Your task to perform on an android device: check data usage Image 0: 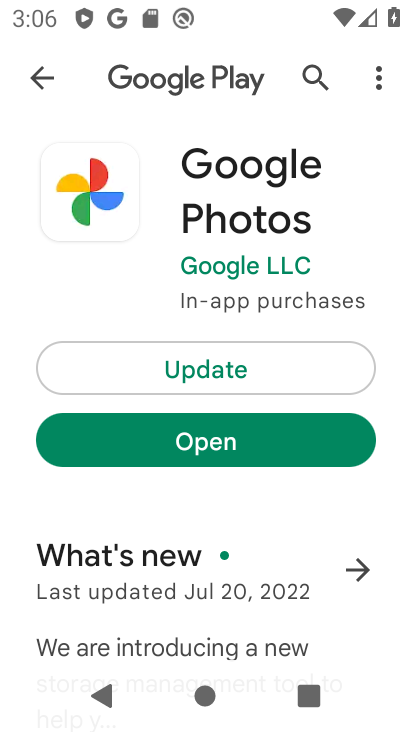
Step 0: press back button
Your task to perform on an android device: check data usage Image 1: 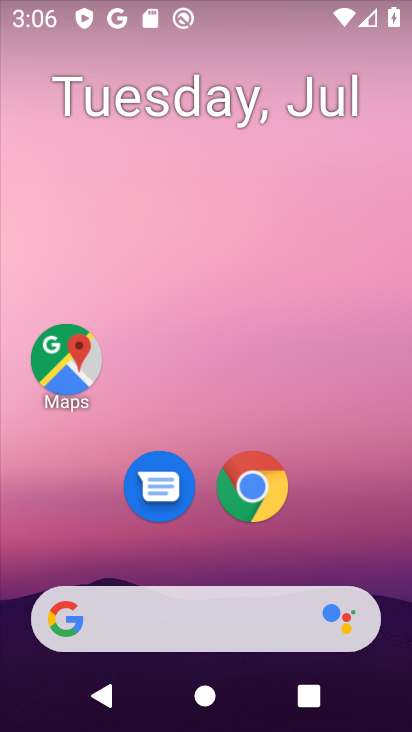
Step 1: drag from (153, 572) to (275, 6)
Your task to perform on an android device: check data usage Image 2: 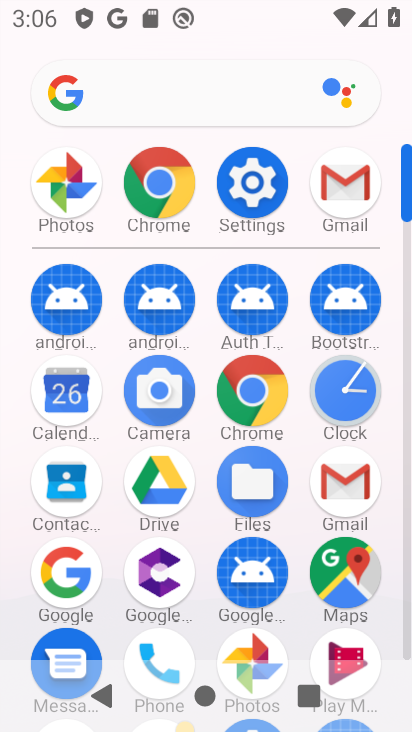
Step 2: click (250, 171)
Your task to perform on an android device: check data usage Image 3: 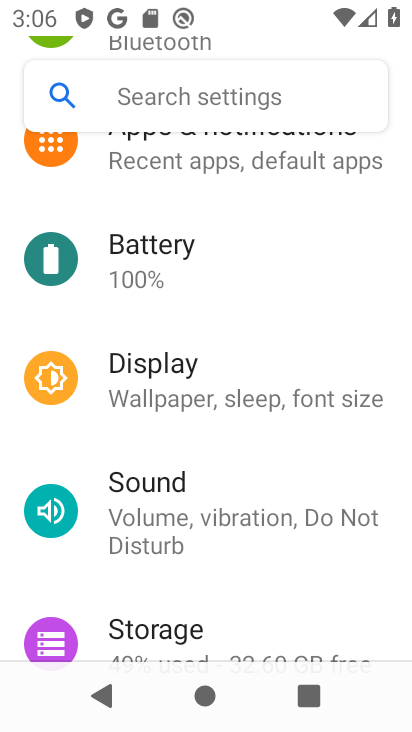
Step 3: drag from (189, 199) to (152, 719)
Your task to perform on an android device: check data usage Image 4: 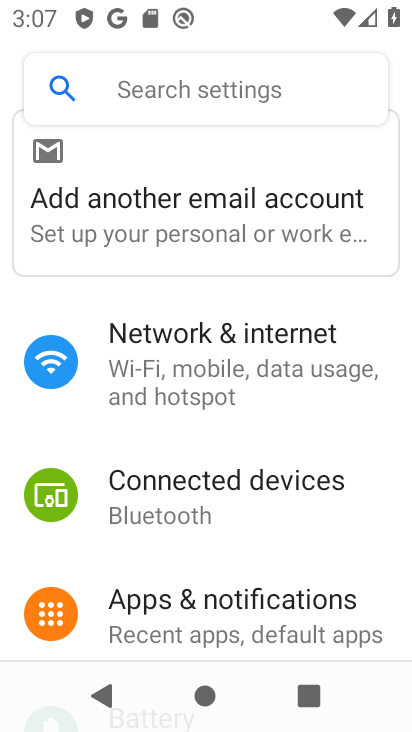
Step 4: click (231, 349)
Your task to perform on an android device: check data usage Image 5: 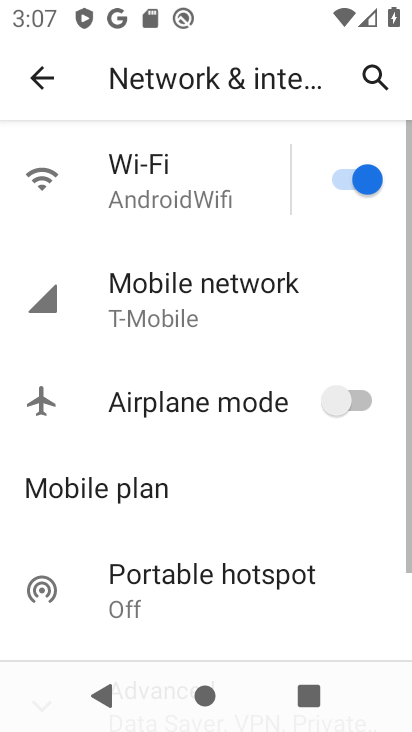
Step 5: click (185, 290)
Your task to perform on an android device: check data usage Image 6: 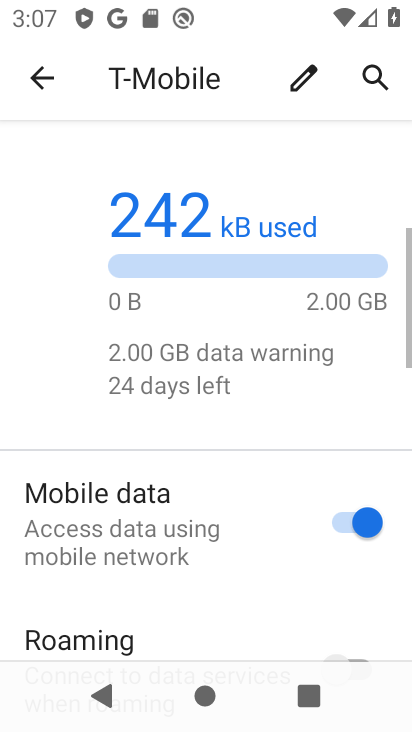
Step 6: drag from (135, 581) to (225, 177)
Your task to perform on an android device: check data usage Image 7: 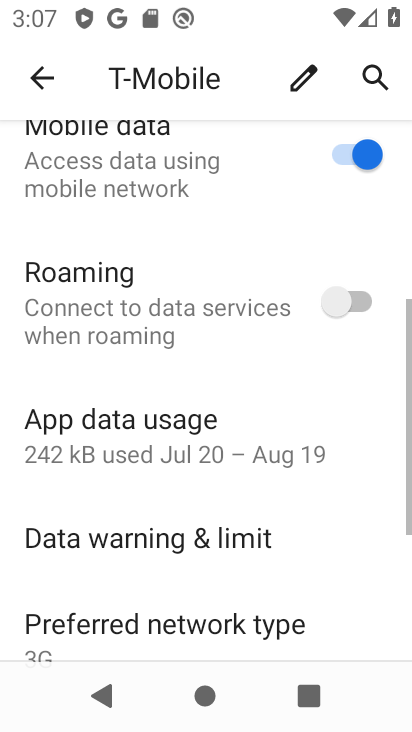
Step 7: click (125, 390)
Your task to perform on an android device: check data usage Image 8: 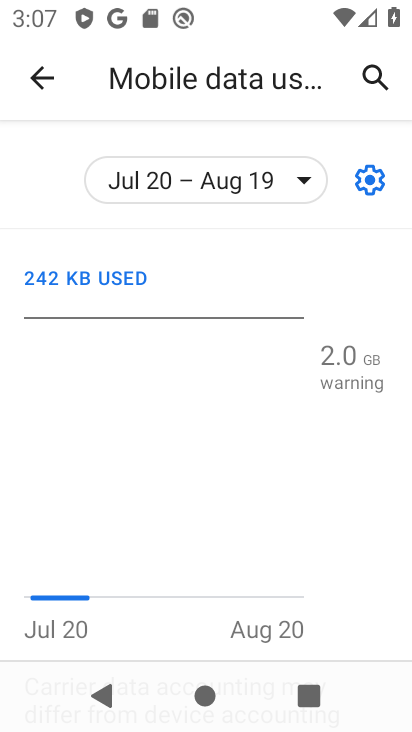
Step 8: task complete